Your task to perform on an android device: Go to eBay Image 0: 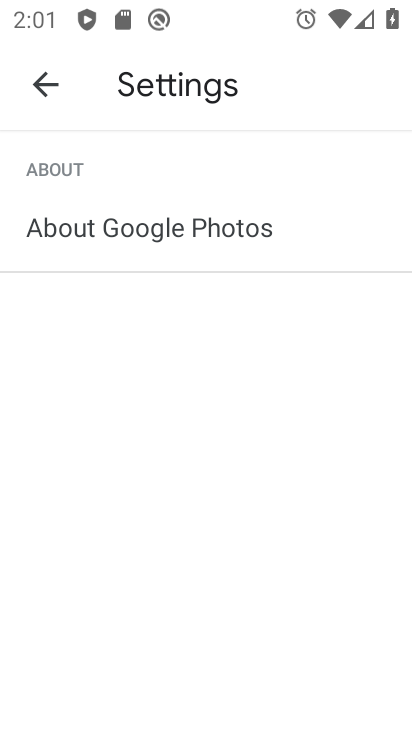
Step 0: press home button
Your task to perform on an android device: Go to eBay Image 1: 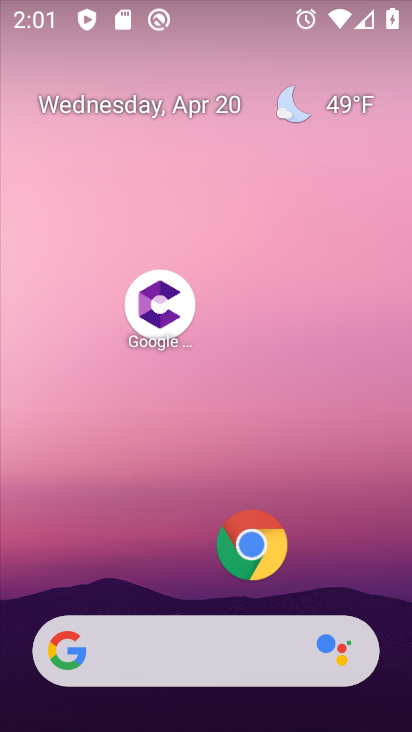
Step 1: click (251, 544)
Your task to perform on an android device: Go to eBay Image 2: 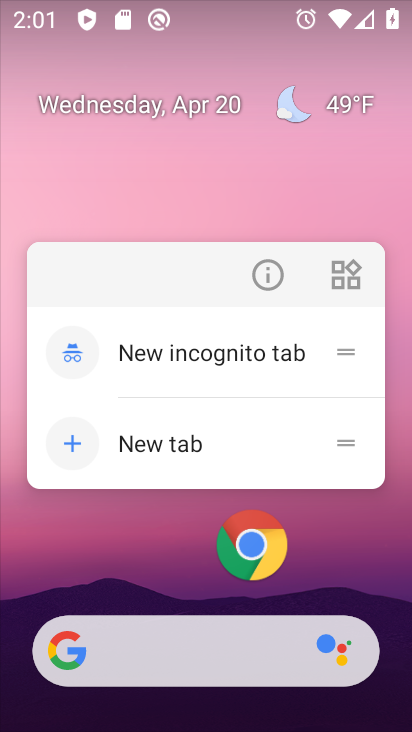
Step 2: click (251, 544)
Your task to perform on an android device: Go to eBay Image 3: 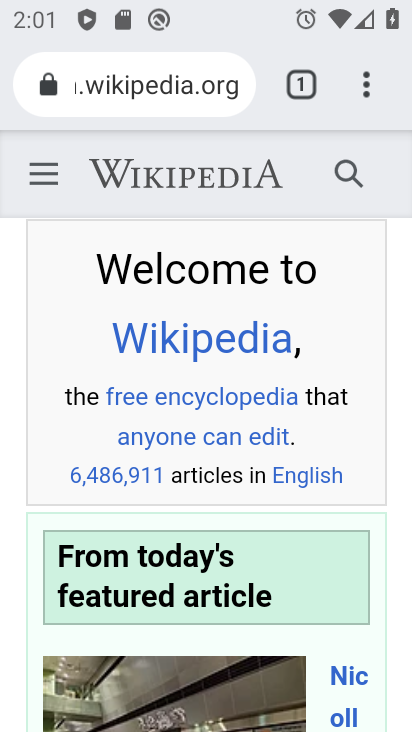
Step 3: click (230, 99)
Your task to perform on an android device: Go to eBay Image 4: 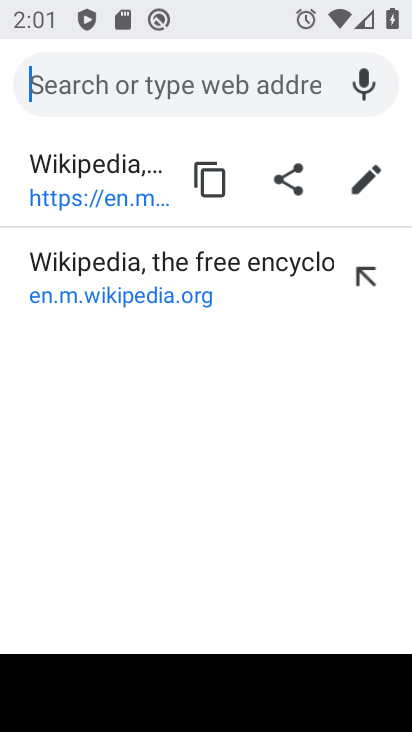
Step 4: type "eBay"
Your task to perform on an android device: Go to eBay Image 5: 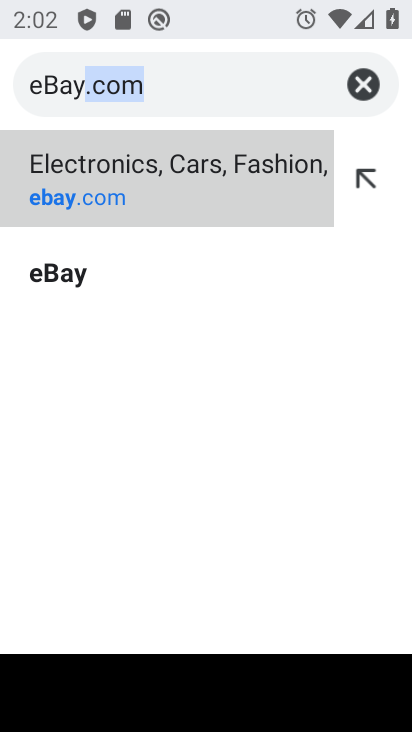
Step 5: click (112, 206)
Your task to perform on an android device: Go to eBay Image 6: 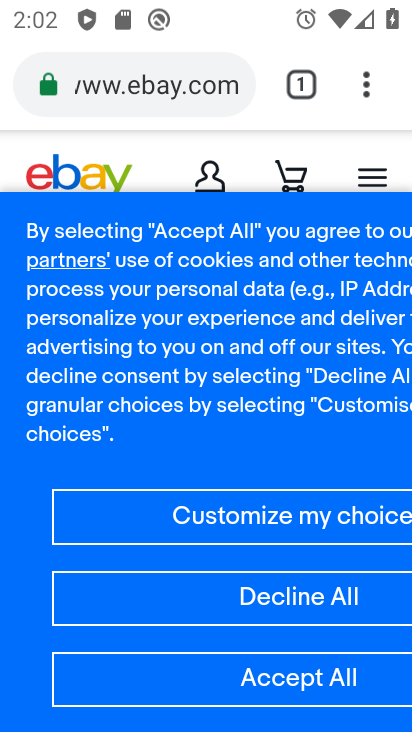
Step 6: task complete